Your task to perform on an android device: turn on improve location accuracy Image 0: 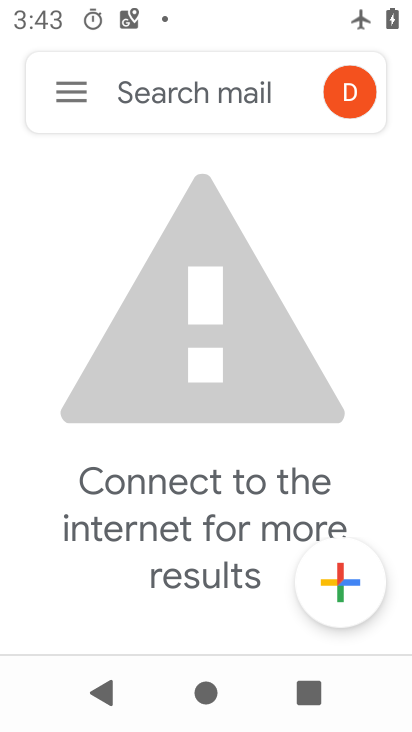
Step 0: drag from (187, 587) to (238, 259)
Your task to perform on an android device: turn on improve location accuracy Image 1: 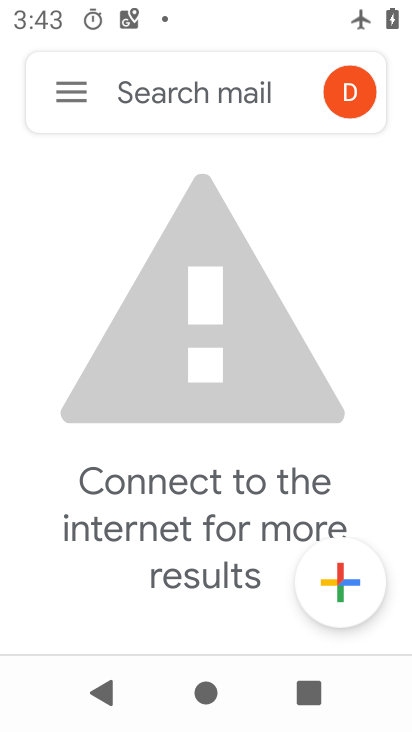
Step 1: click (57, 100)
Your task to perform on an android device: turn on improve location accuracy Image 2: 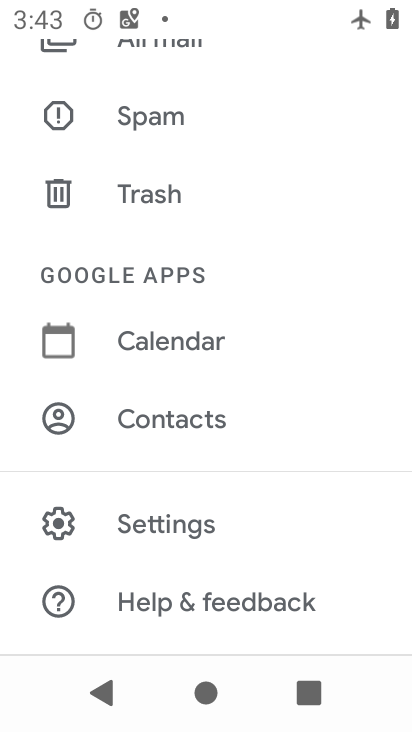
Step 2: drag from (203, 562) to (340, 222)
Your task to perform on an android device: turn on improve location accuracy Image 3: 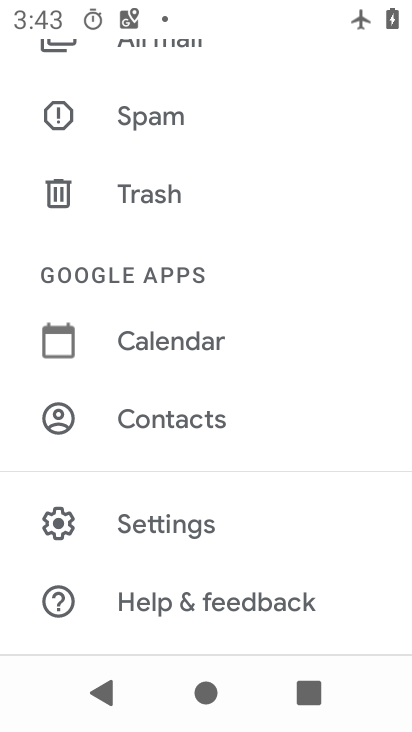
Step 3: press home button
Your task to perform on an android device: turn on improve location accuracy Image 4: 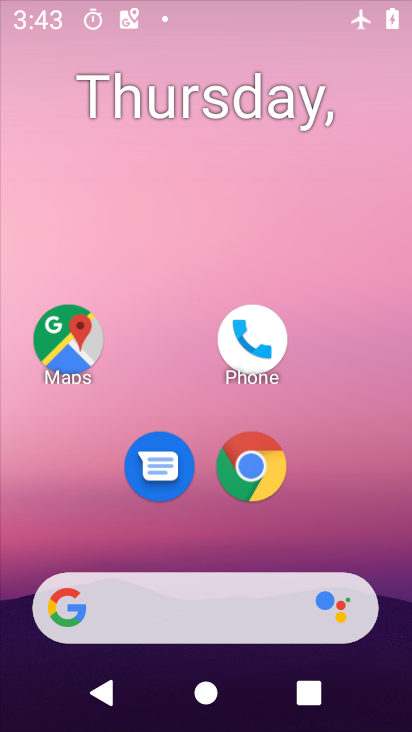
Step 4: drag from (159, 566) to (218, 4)
Your task to perform on an android device: turn on improve location accuracy Image 5: 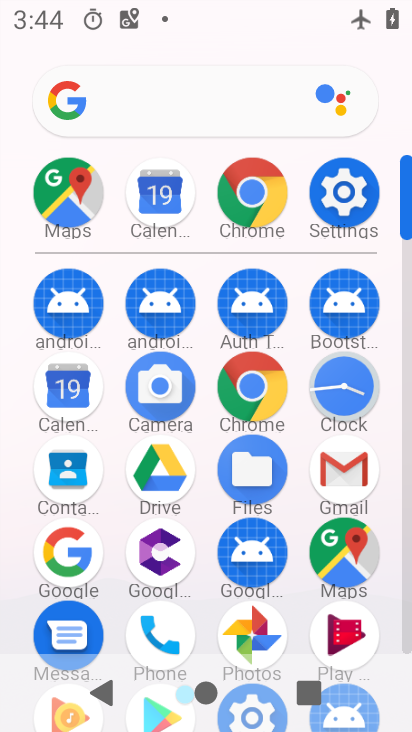
Step 5: click (348, 193)
Your task to perform on an android device: turn on improve location accuracy Image 6: 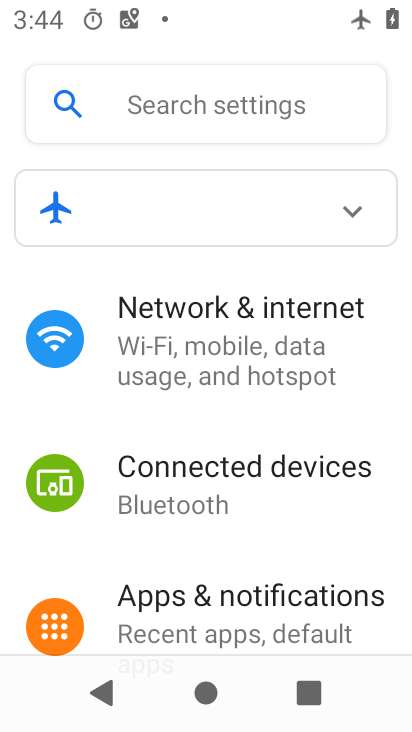
Step 6: drag from (210, 534) to (262, 162)
Your task to perform on an android device: turn on improve location accuracy Image 7: 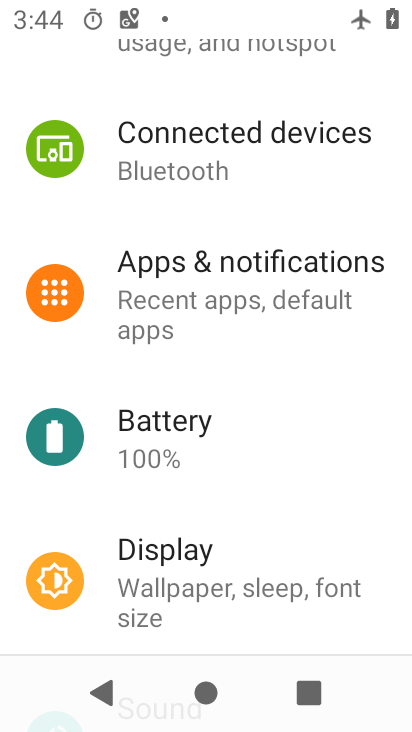
Step 7: drag from (173, 585) to (309, 73)
Your task to perform on an android device: turn on improve location accuracy Image 8: 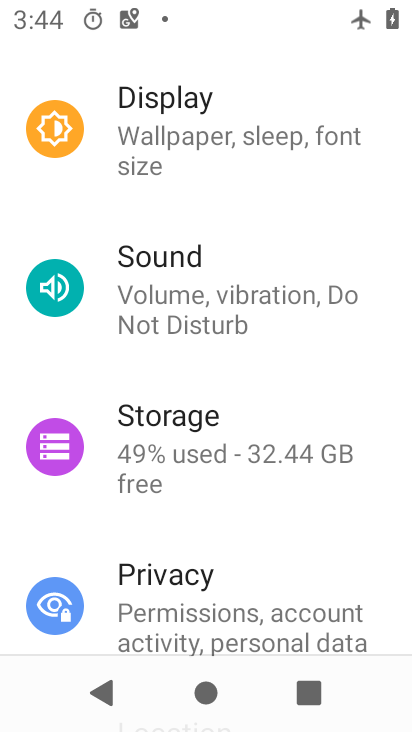
Step 8: drag from (182, 553) to (245, 134)
Your task to perform on an android device: turn on improve location accuracy Image 9: 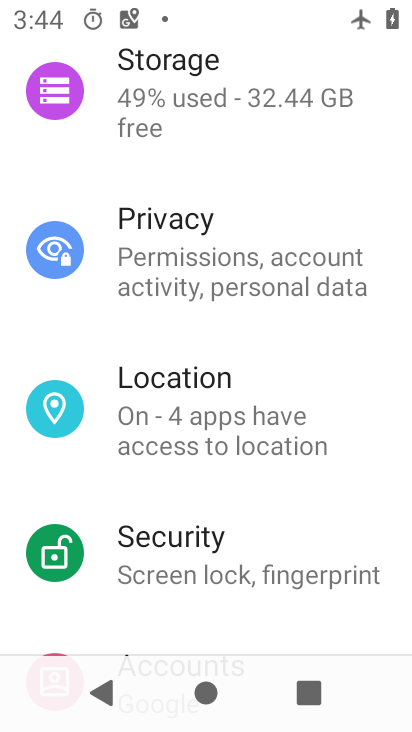
Step 9: click (198, 412)
Your task to perform on an android device: turn on improve location accuracy Image 10: 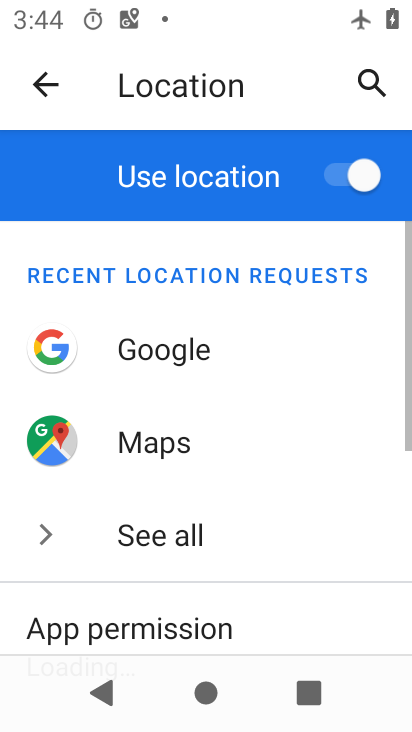
Step 10: drag from (237, 574) to (344, 87)
Your task to perform on an android device: turn on improve location accuracy Image 11: 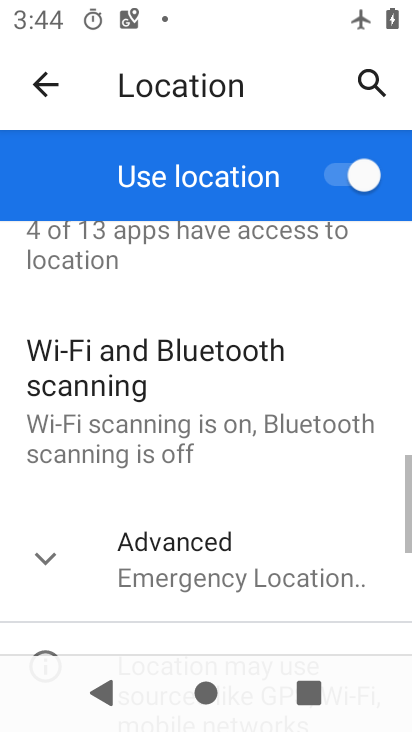
Step 11: click (120, 538)
Your task to perform on an android device: turn on improve location accuracy Image 12: 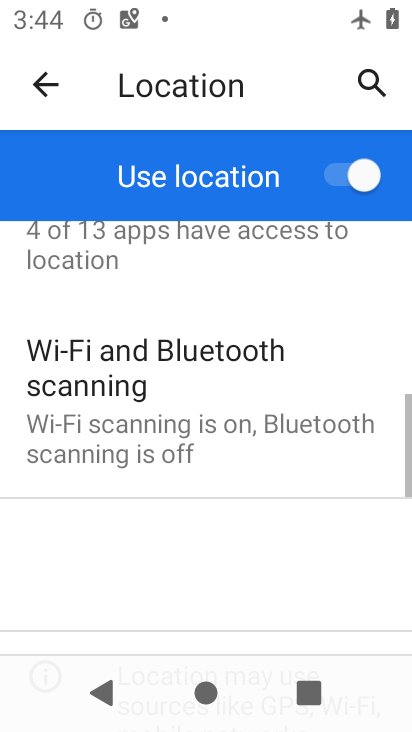
Step 12: drag from (173, 538) to (284, 103)
Your task to perform on an android device: turn on improve location accuracy Image 13: 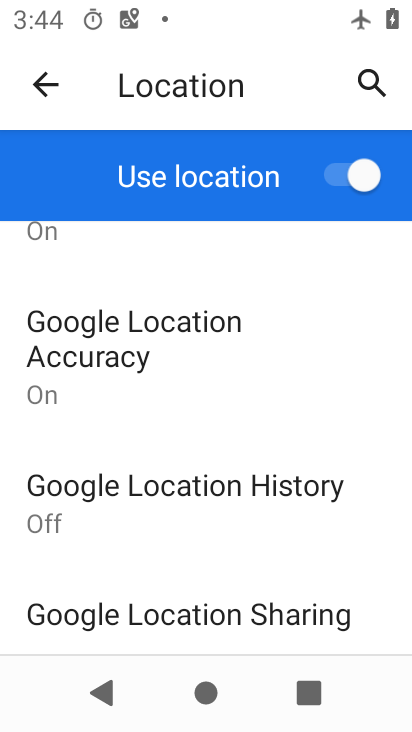
Step 13: click (140, 375)
Your task to perform on an android device: turn on improve location accuracy Image 14: 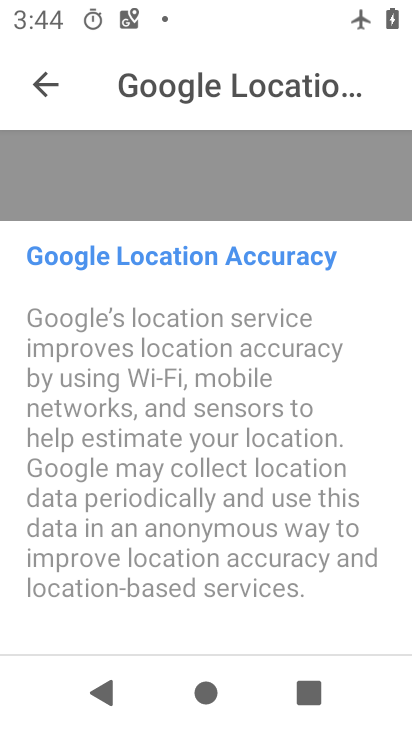
Step 14: task complete